Your task to perform on an android device: change the clock display to digital Image 0: 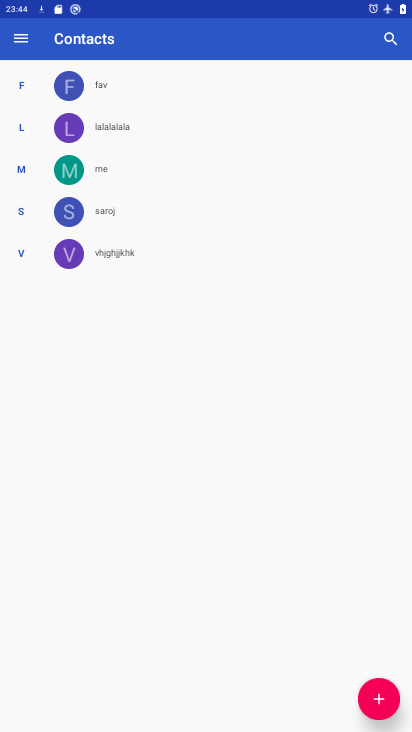
Step 0: press home button
Your task to perform on an android device: change the clock display to digital Image 1: 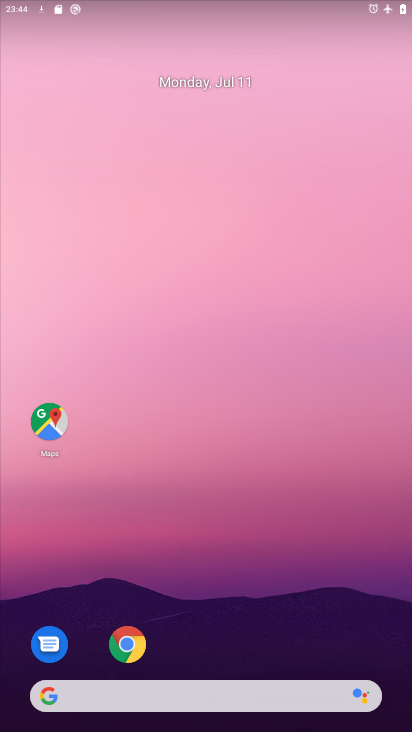
Step 1: drag from (244, 658) to (250, 183)
Your task to perform on an android device: change the clock display to digital Image 2: 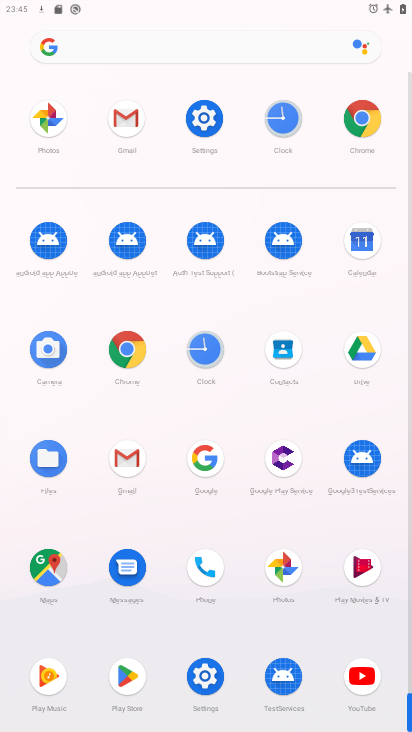
Step 2: click (203, 348)
Your task to perform on an android device: change the clock display to digital Image 3: 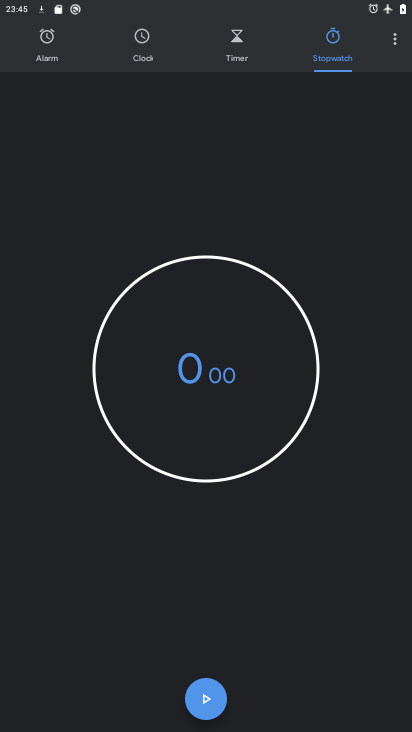
Step 3: click (401, 47)
Your task to perform on an android device: change the clock display to digital Image 4: 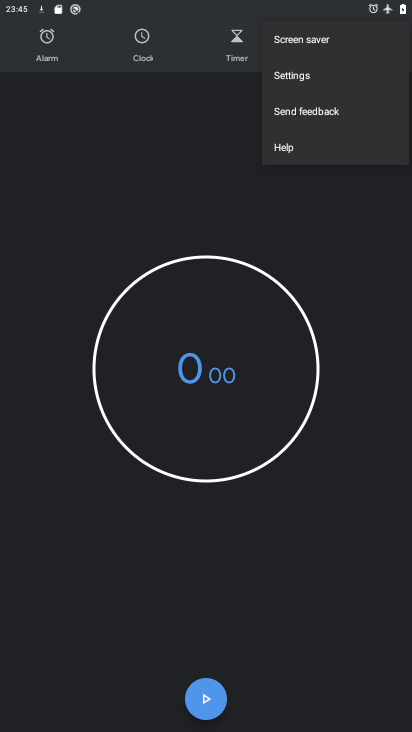
Step 4: click (286, 70)
Your task to perform on an android device: change the clock display to digital Image 5: 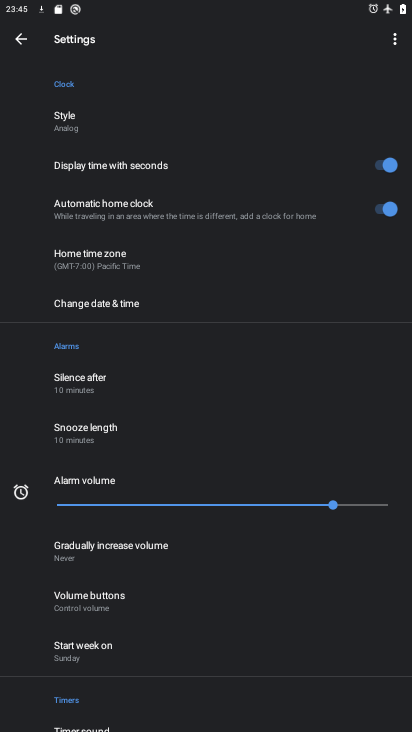
Step 5: drag from (78, 120) to (274, 314)
Your task to perform on an android device: change the clock display to digital Image 6: 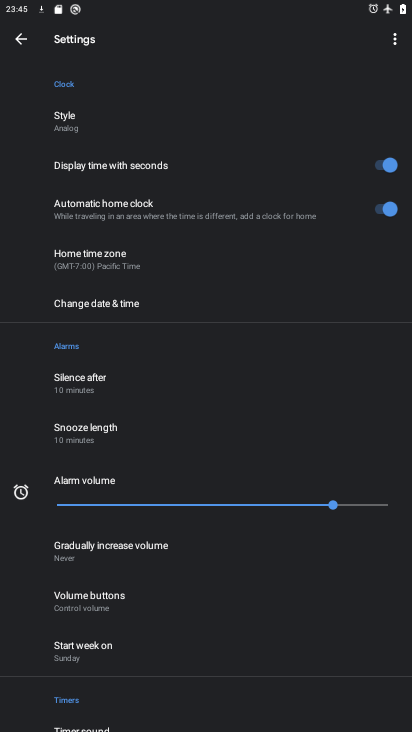
Step 6: click (78, 124)
Your task to perform on an android device: change the clock display to digital Image 7: 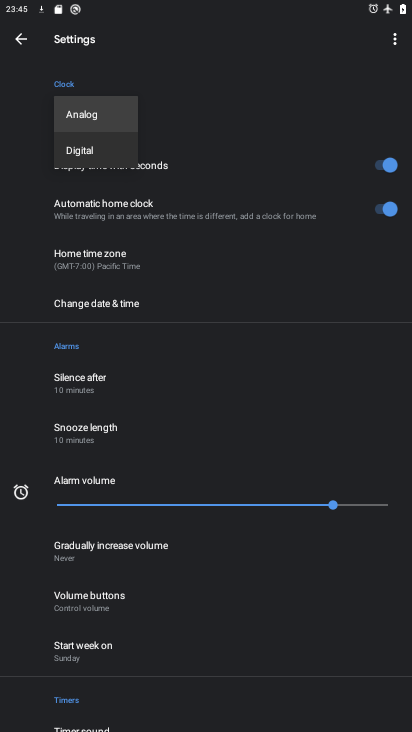
Step 7: click (98, 140)
Your task to perform on an android device: change the clock display to digital Image 8: 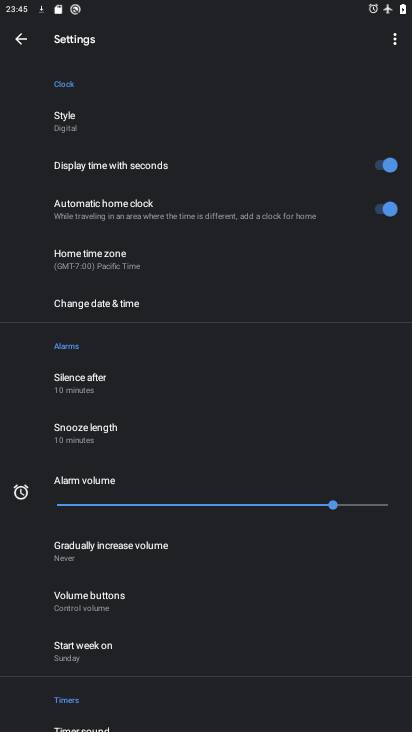
Step 8: task complete